Your task to perform on an android device: Open settings Image 0: 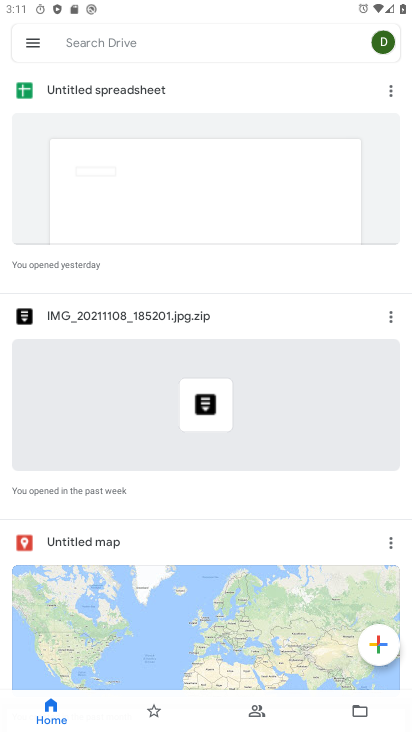
Step 0: press home button
Your task to perform on an android device: Open settings Image 1: 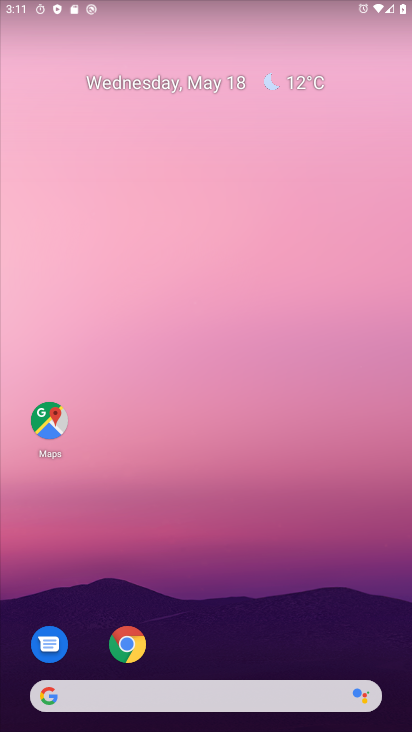
Step 1: drag from (363, 556) to (331, 344)
Your task to perform on an android device: Open settings Image 2: 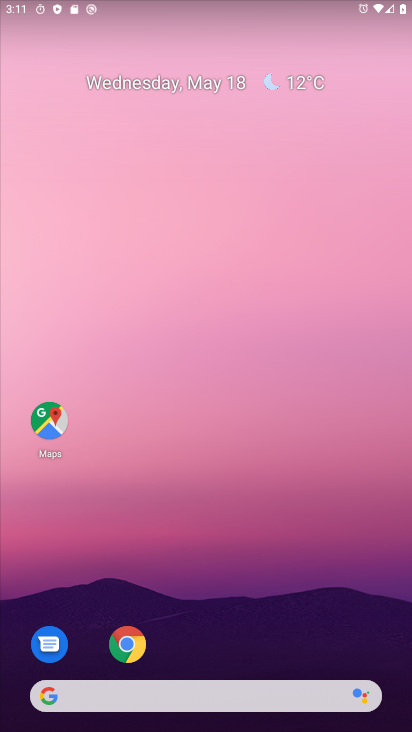
Step 2: drag from (339, 440) to (259, 161)
Your task to perform on an android device: Open settings Image 3: 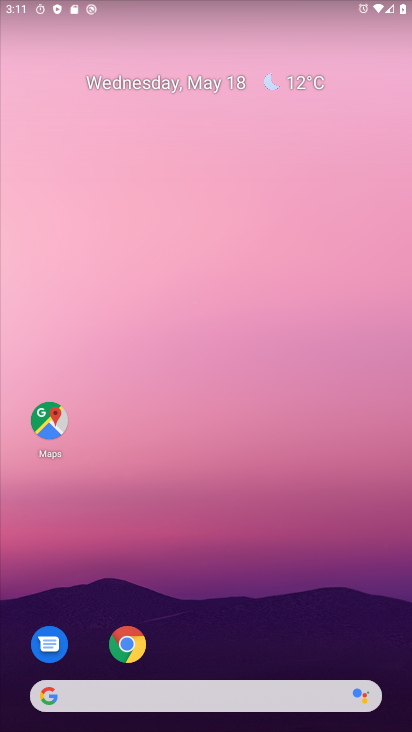
Step 3: drag from (361, 517) to (326, 389)
Your task to perform on an android device: Open settings Image 4: 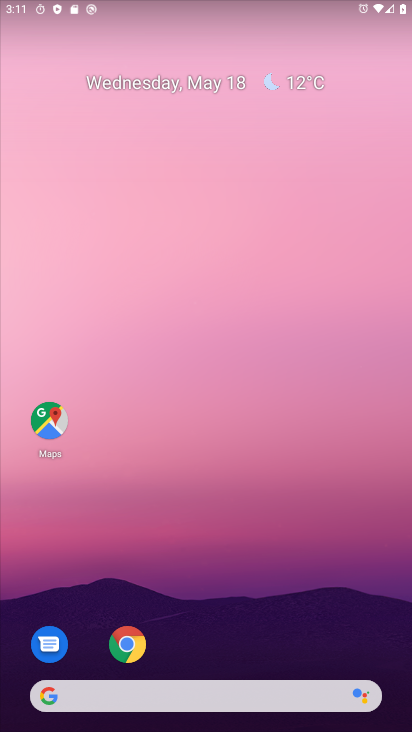
Step 4: drag from (402, 682) to (270, 285)
Your task to perform on an android device: Open settings Image 5: 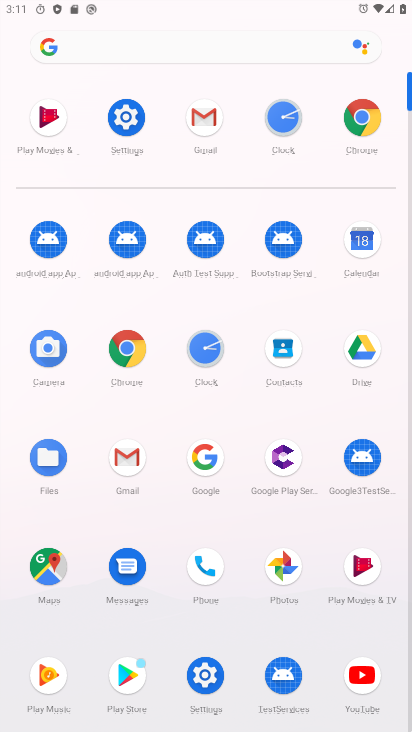
Step 5: click (210, 666)
Your task to perform on an android device: Open settings Image 6: 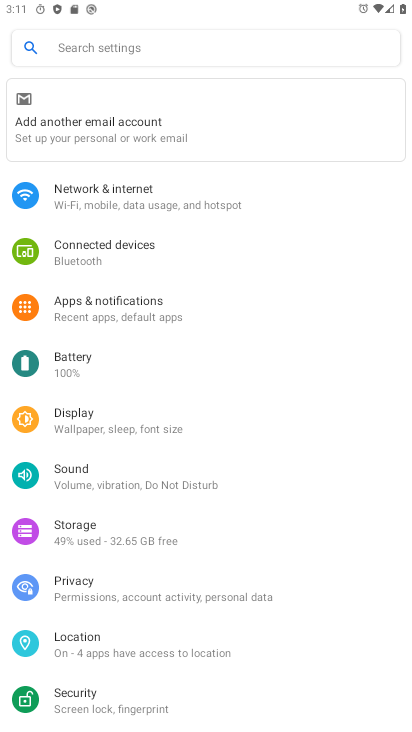
Step 6: task complete